Your task to perform on an android device: What's the weather today? Image 0: 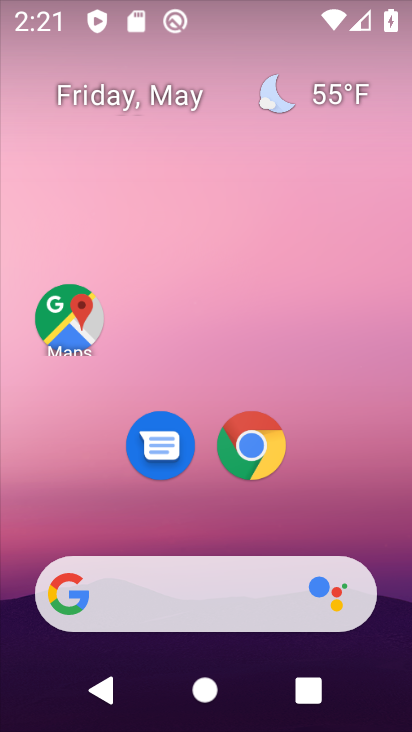
Step 0: drag from (370, 506) to (315, 150)
Your task to perform on an android device: What's the weather today? Image 1: 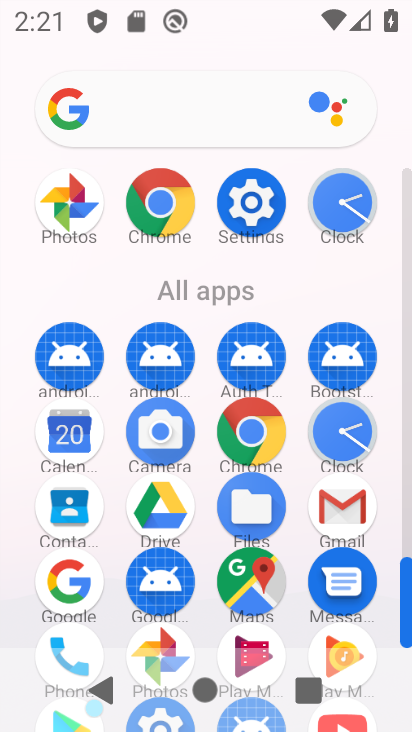
Step 1: click (254, 437)
Your task to perform on an android device: What's the weather today? Image 2: 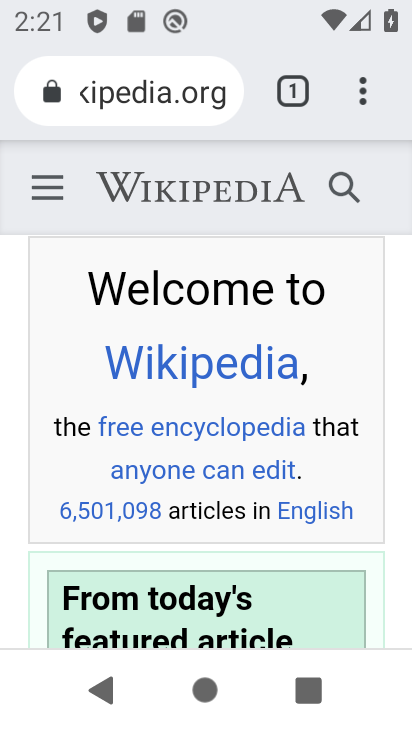
Step 2: click (120, 85)
Your task to perform on an android device: What's the weather today? Image 3: 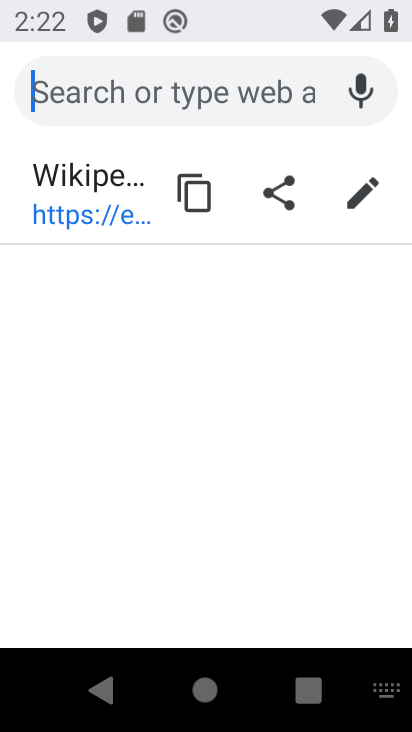
Step 3: type "what's the weather today"
Your task to perform on an android device: What's the weather today? Image 4: 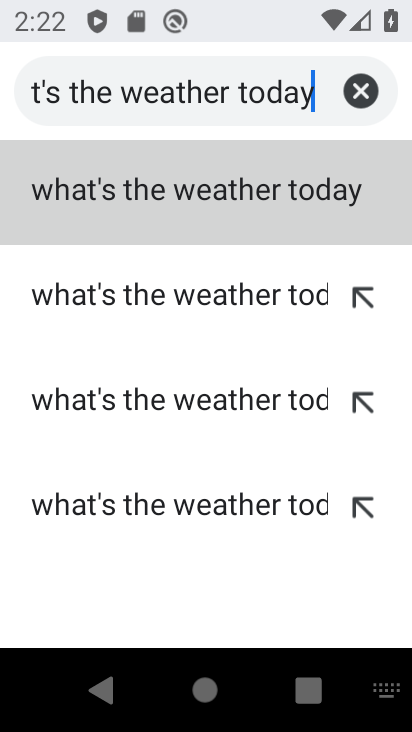
Step 4: click (226, 208)
Your task to perform on an android device: What's the weather today? Image 5: 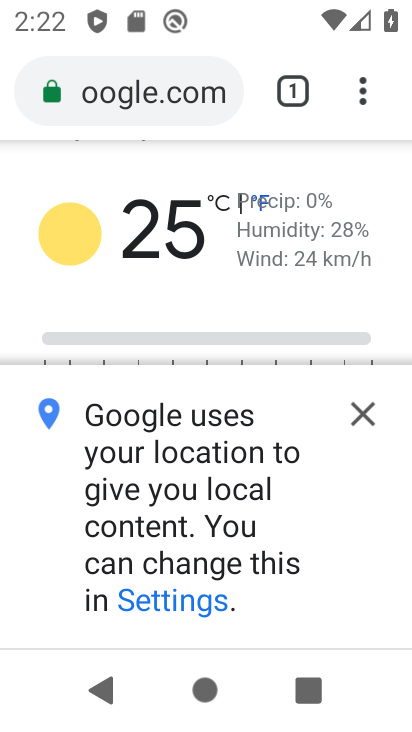
Step 5: click (367, 420)
Your task to perform on an android device: What's the weather today? Image 6: 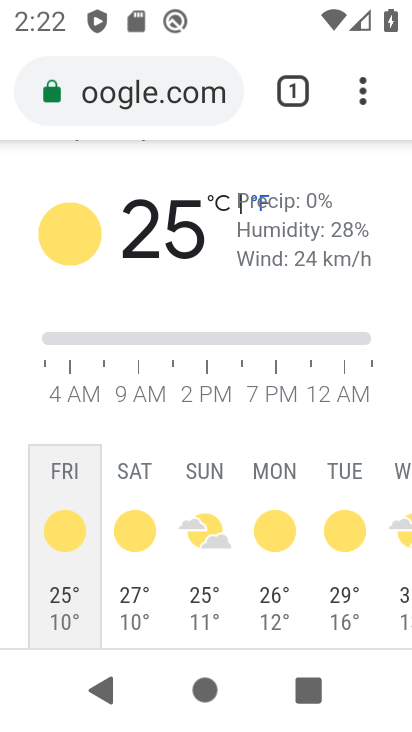
Step 6: task complete